Your task to perform on an android device: toggle sleep mode Image 0: 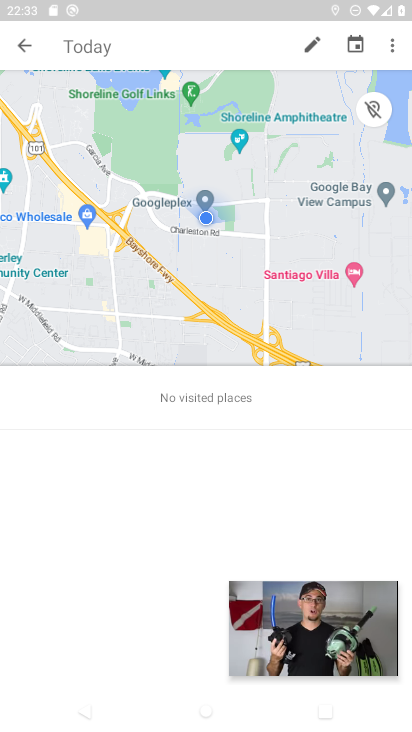
Step 0: press home button
Your task to perform on an android device: toggle sleep mode Image 1: 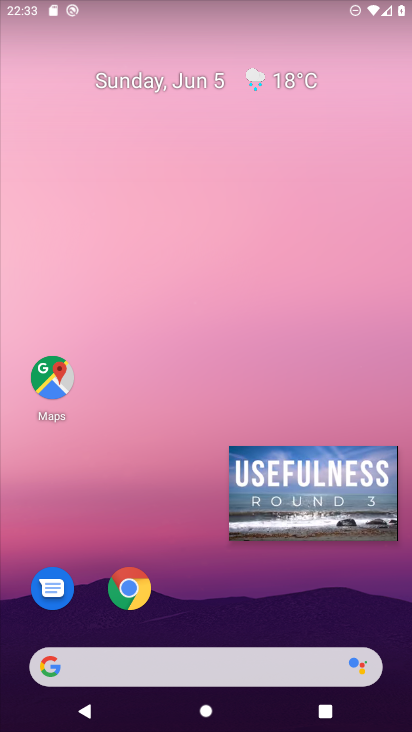
Step 1: drag from (354, 584) to (328, 434)
Your task to perform on an android device: toggle sleep mode Image 2: 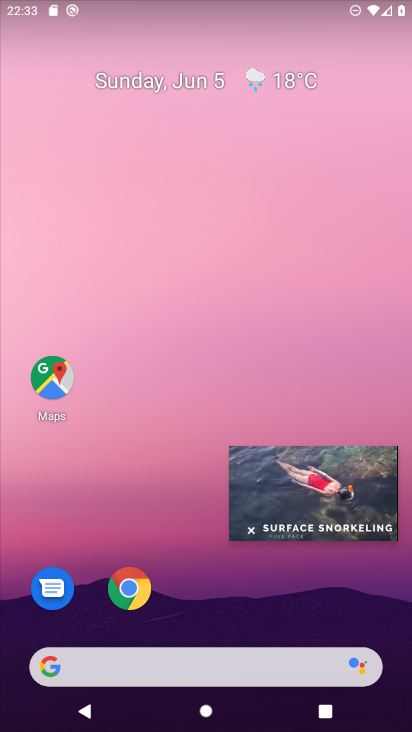
Step 2: drag from (224, 597) to (244, 249)
Your task to perform on an android device: toggle sleep mode Image 3: 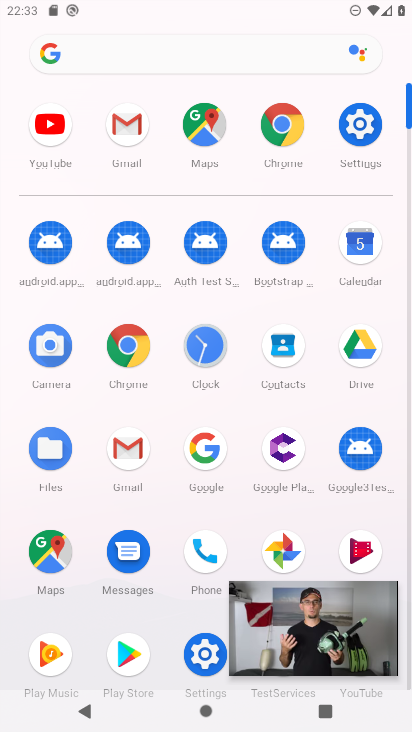
Step 3: click (369, 132)
Your task to perform on an android device: toggle sleep mode Image 4: 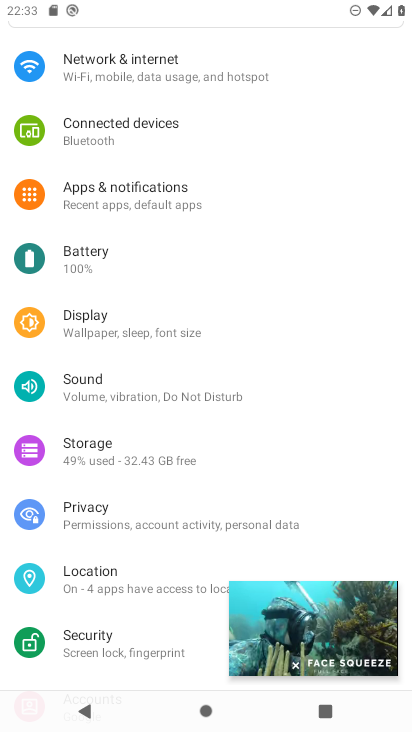
Step 4: click (132, 321)
Your task to perform on an android device: toggle sleep mode Image 5: 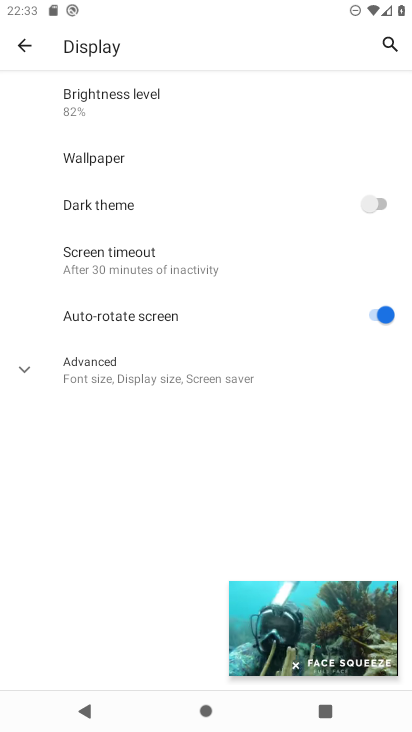
Step 5: click (160, 378)
Your task to perform on an android device: toggle sleep mode Image 6: 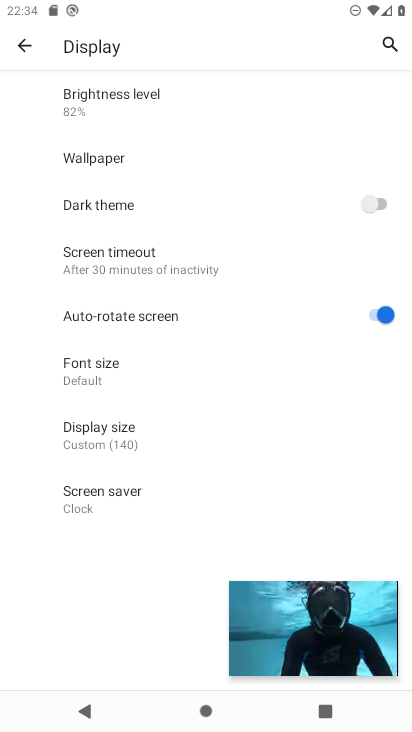
Step 6: task complete